Your task to perform on an android device: Do I have any events today? Image 0: 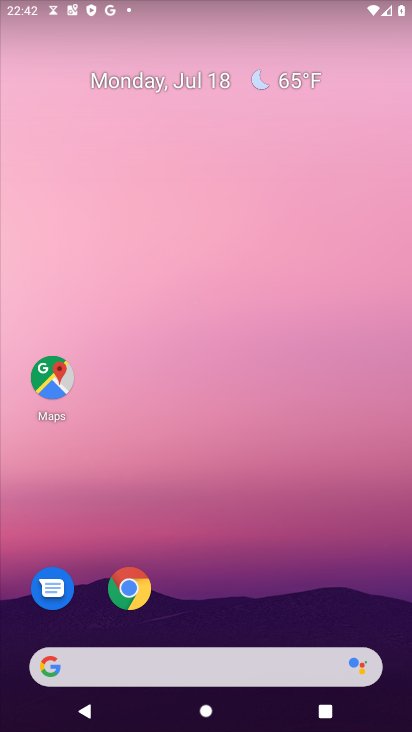
Step 0: drag from (191, 668) to (242, 59)
Your task to perform on an android device: Do I have any events today? Image 1: 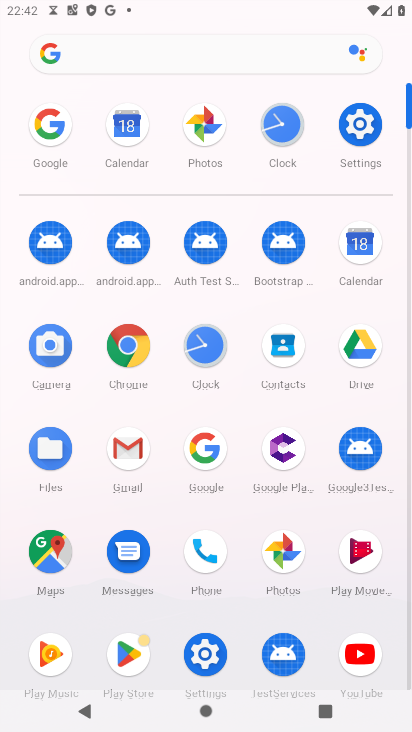
Step 1: click (363, 245)
Your task to perform on an android device: Do I have any events today? Image 2: 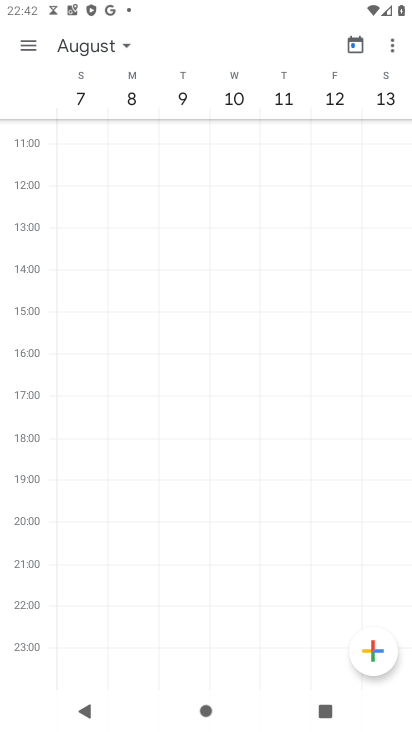
Step 2: click (358, 42)
Your task to perform on an android device: Do I have any events today? Image 3: 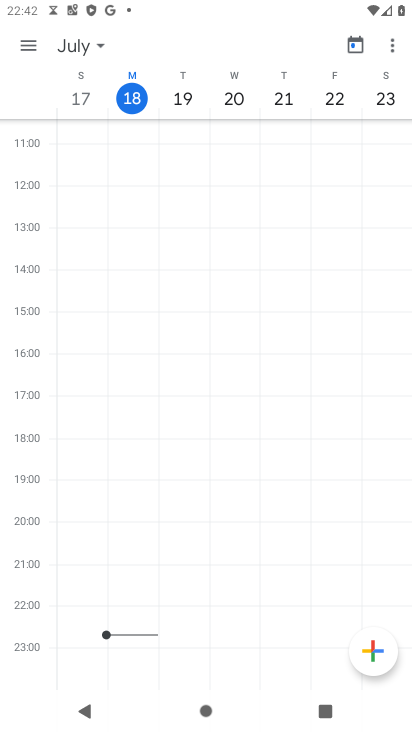
Step 3: click (97, 39)
Your task to perform on an android device: Do I have any events today? Image 4: 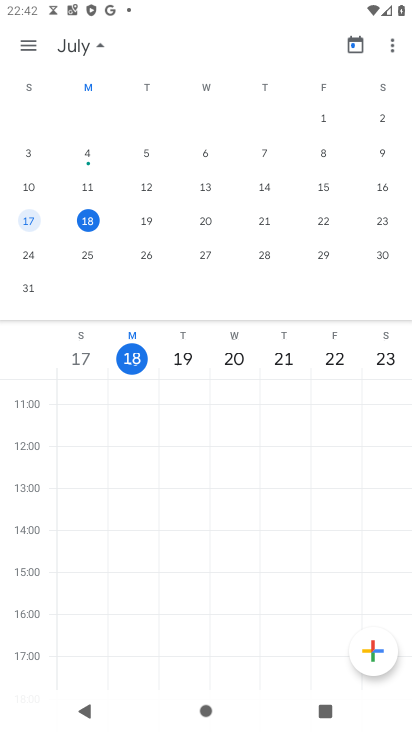
Step 4: click (16, 32)
Your task to perform on an android device: Do I have any events today? Image 5: 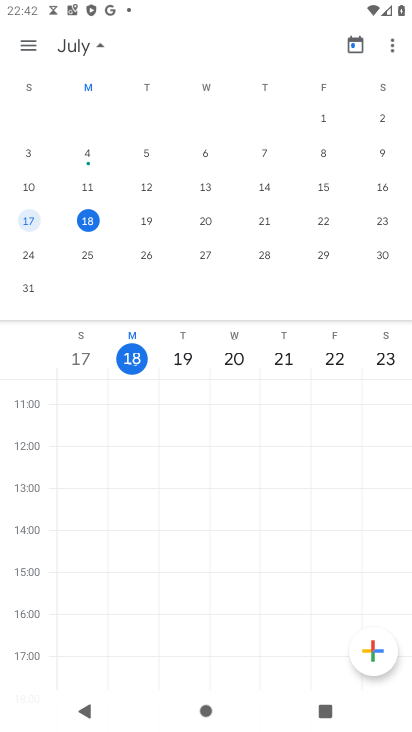
Step 5: task complete